Your task to perform on an android device: Open calendar and show me the second week of next month Image 0: 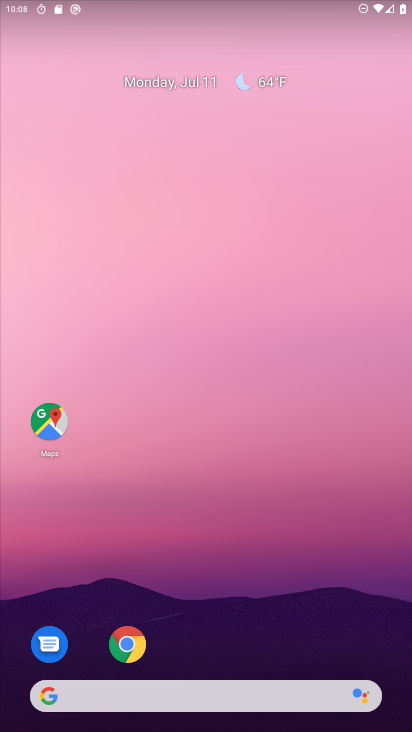
Step 0: drag from (277, 623) to (270, 71)
Your task to perform on an android device: Open calendar and show me the second week of next month Image 1: 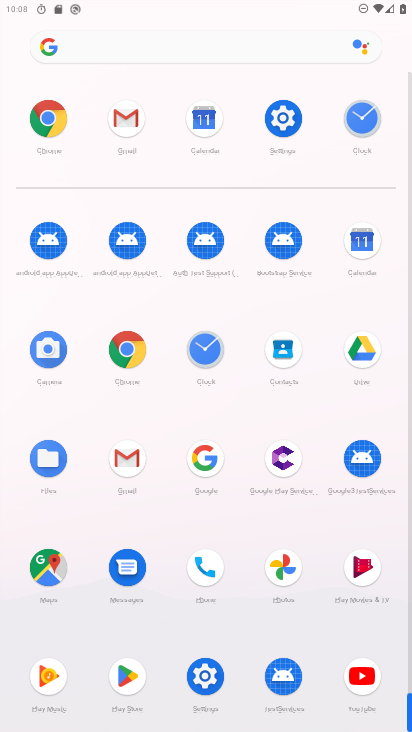
Step 1: click (200, 119)
Your task to perform on an android device: Open calendar and show me the second week of next month Image 2: 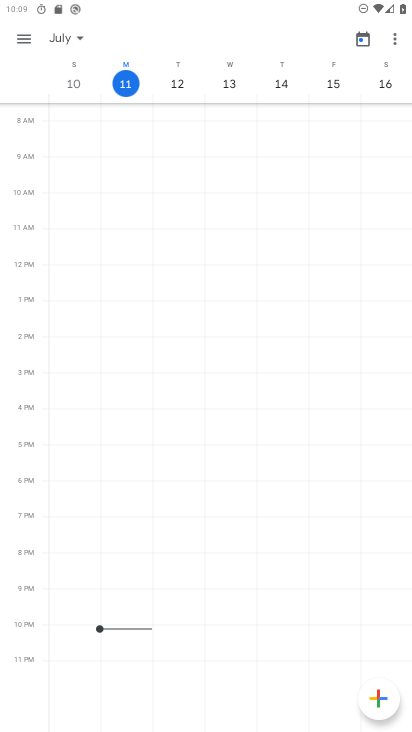
Step 2: click (66, 34)
Your task to perform on an android device: Open calendar and show me the second week of next month Image 3: 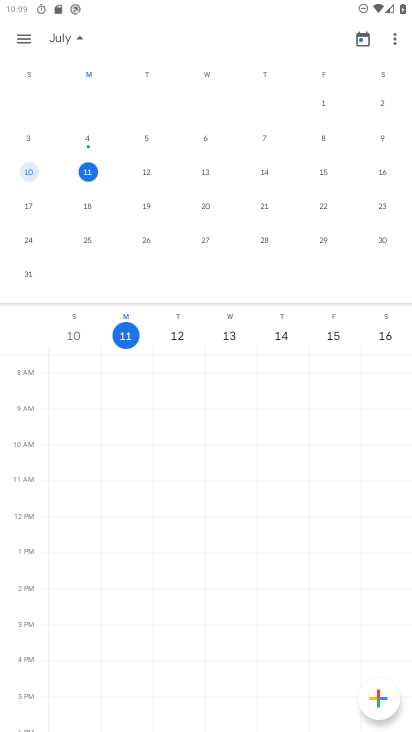
Step 3: drag from (318, 186) to (34, 180)
Your task to perform on an android device: Open calendar and show me the second week of next month Image 4: 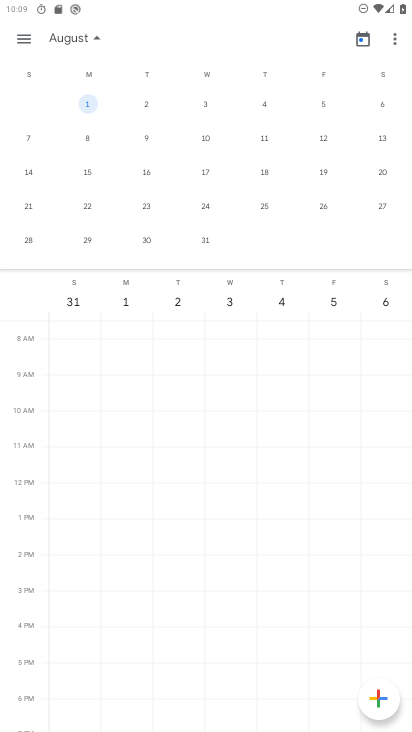
Step 4: click (30, 128)
Your task to perform on an android device: Open calendar and show me the second week of next month Image 5: 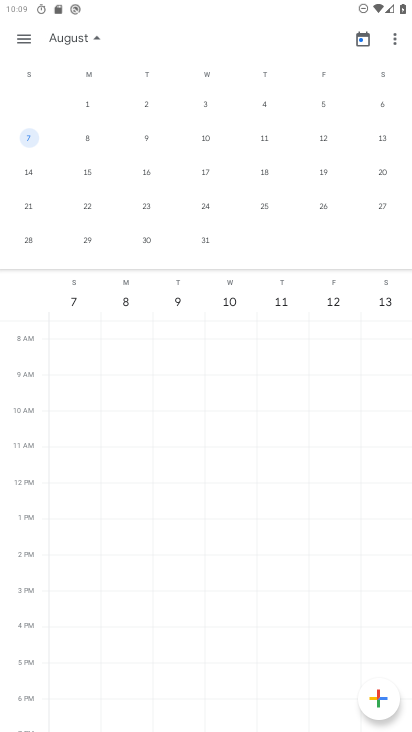
Step 5: task complete